Your task to perform on an android device: Is it going to rain this weekend? Image 0: 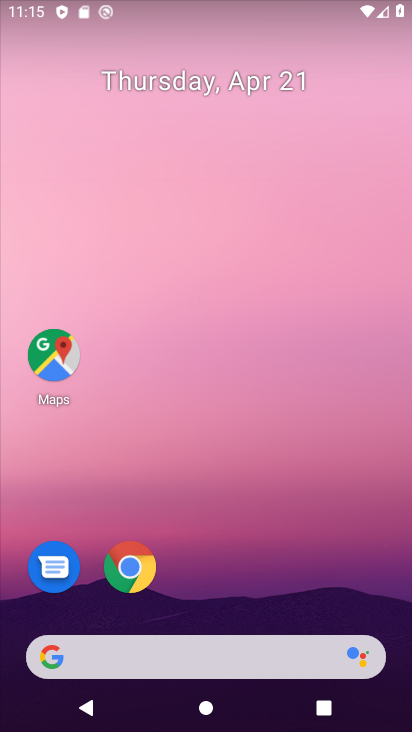
Step 0: drag from (352, 532) to (345, 152)
Your task to perform on an android device: Is it going to rain this weekend? Image 1: 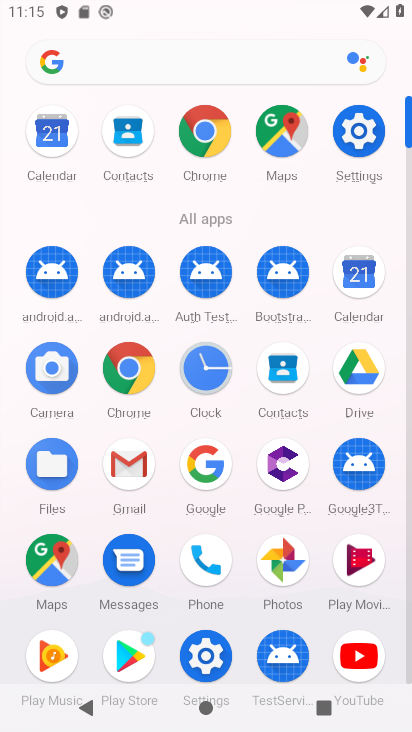
Step 1: click (130, 364)
Your task to perform on an android device: Is it going to rain this weekend? Image 2: 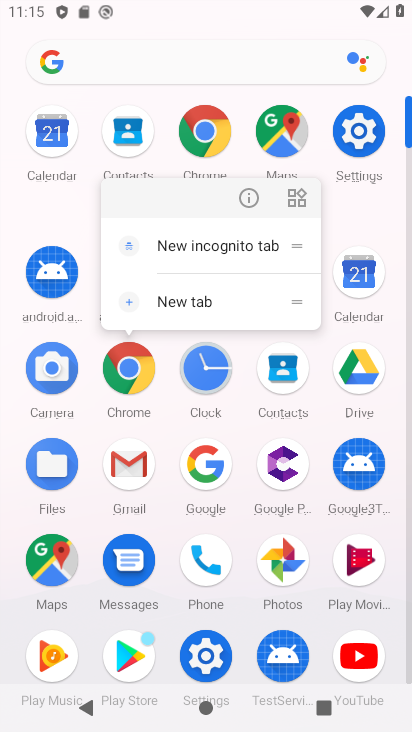
Step 2: click (129, 372)
Your task to perform on an android device: Is it going to rain this weekend? Image 3: 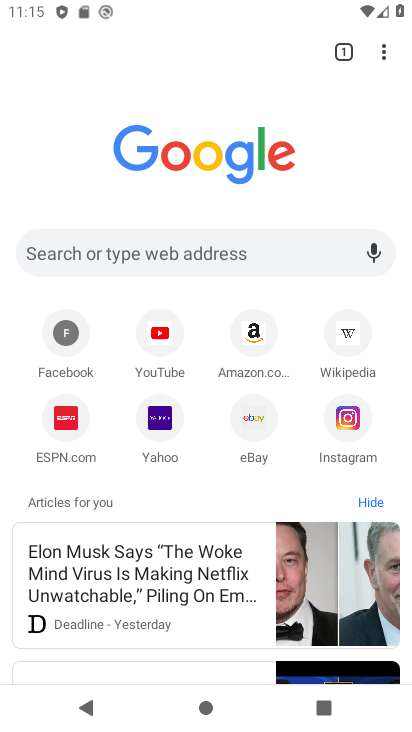
Step 3: click (145, 243)
Your task to perform on an android device: Is it going to rain this weekend? Image 4: 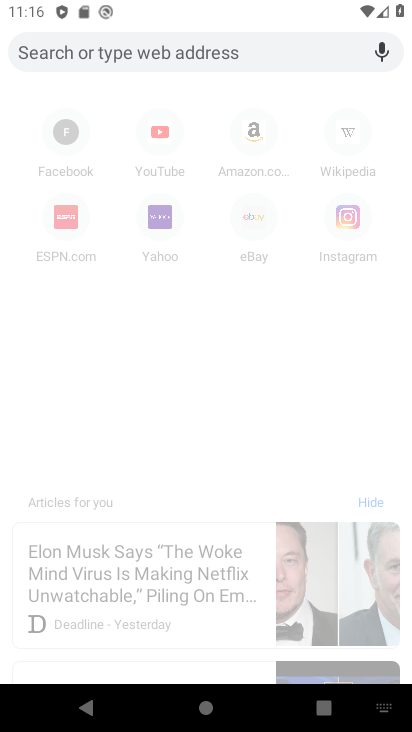
Step 4: type "is it going to rain this weekend"
Your task to perform on an android device: Is it going to rain this weekend? Image 5: 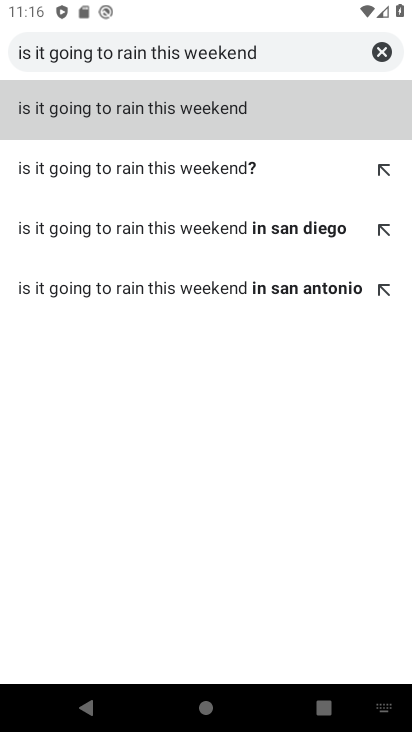
Step 5: click (130, 118)
Your task to perform on an android device: Is it going to rain this weekend? Image 6: 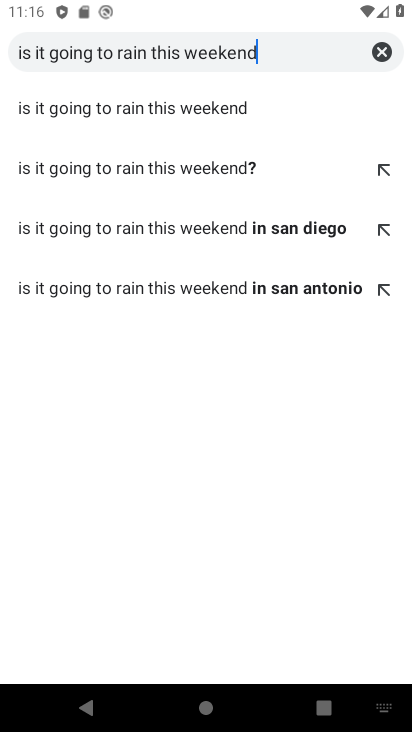
Step 6: click (161, 105)
Your task to perform on an android device: Is it going to rain this weekend? Image 7: 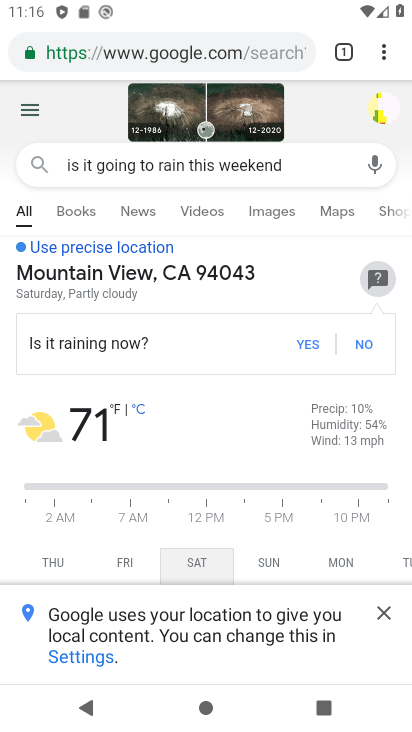
Step 7: task complete